Your task to perform on an android device: Is it going to rain tomorrow? Image 0: 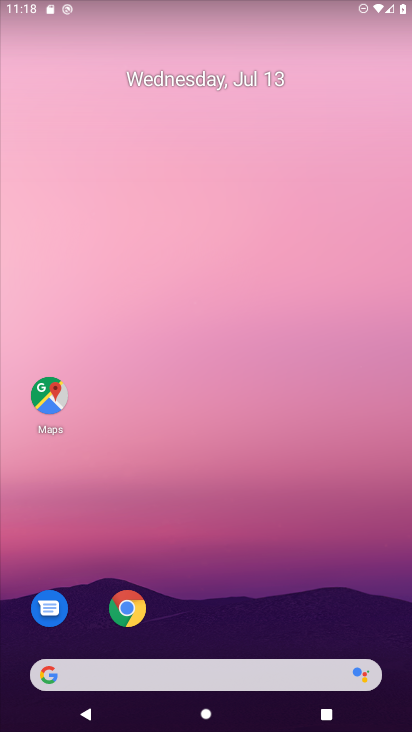
Step 0: click (145, 673)
Your task to perform on an android device: Is it going to rain tomorrow? Image 1: 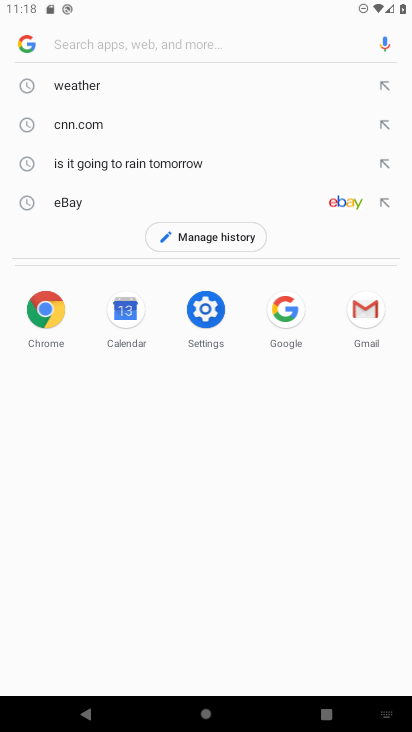
Step 1: type "is it going to rain tomorrow?"
Your task to perform on an android device: Is it going to rain tomorrow? Image 2: 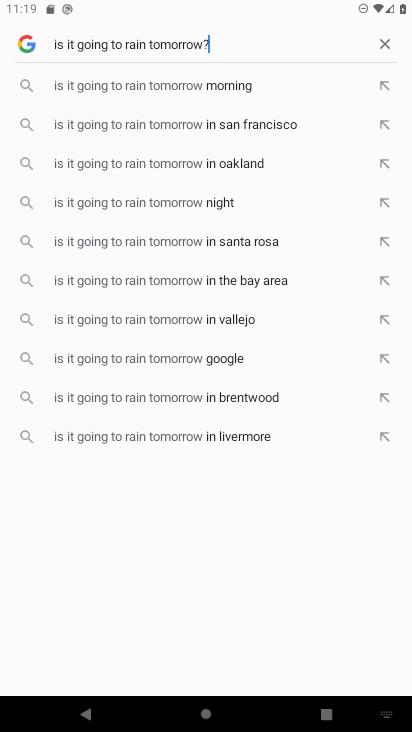
Step 2: click (207, 358)
Your task to perform on an android device: Is it going to rain tomorrow? Image 3: 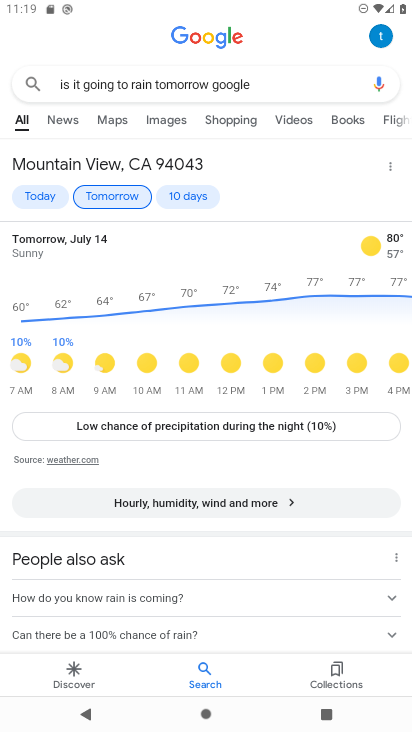
Step 3: task complete